Your task to perform on an android device: turn on bluetooth scan Image 0: 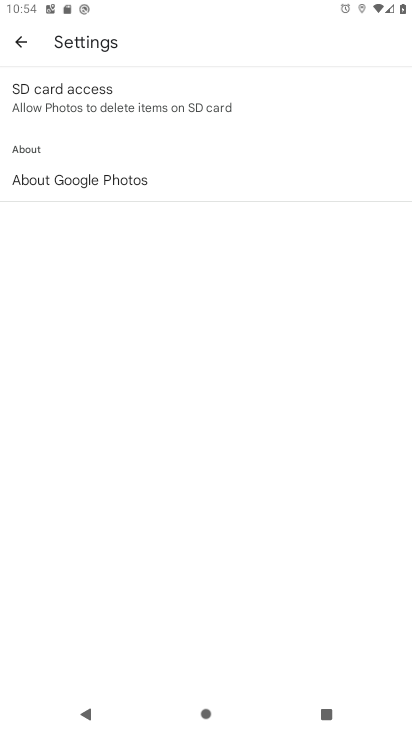
Step 0: press home button
Your task to perform on an android device: turn on bluetooth scan Image 1: 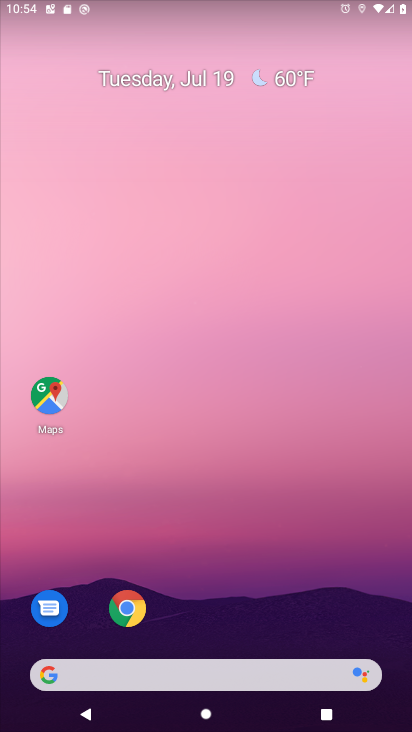
Step 1: drag from (195, 645) to (246, 52)
Your task to perform on an android device: turn on bluetooth scan Image 2: 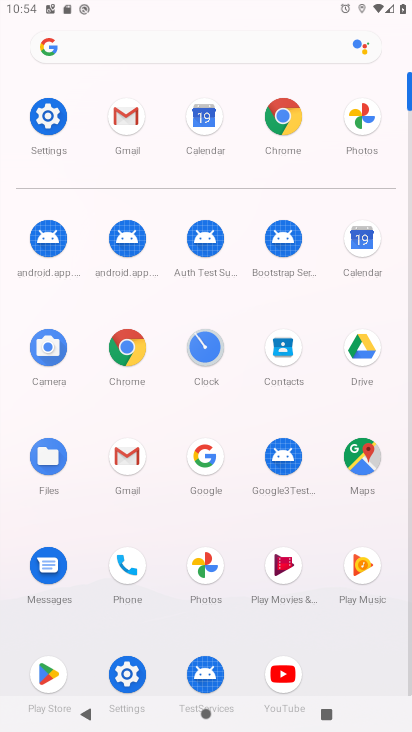
Step 2: click (38, 112)
Your task to perform on an android device: turn on bluetooth scan Image 3: 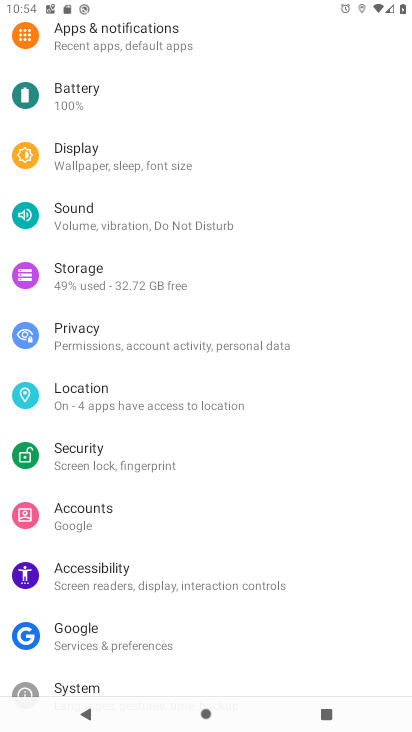
Step 3: drag from (86, 129) to (159, 590)
Your task to perform on an android device: turn on bluetooth scan Image 4: 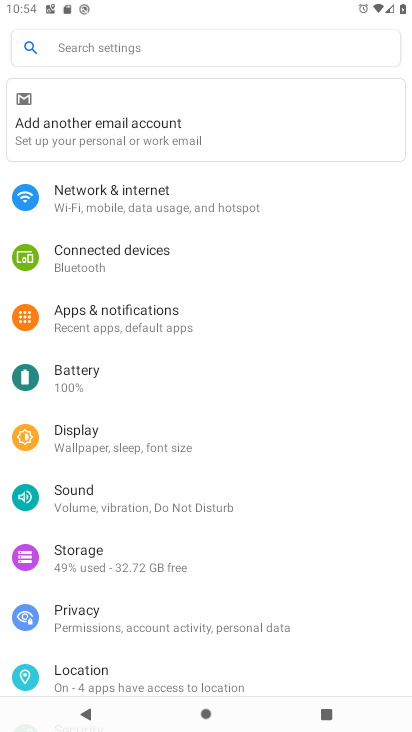
Step 4: click (83, 676)
Your task to perform on an android device: turn on bluetooth scan Image 5: 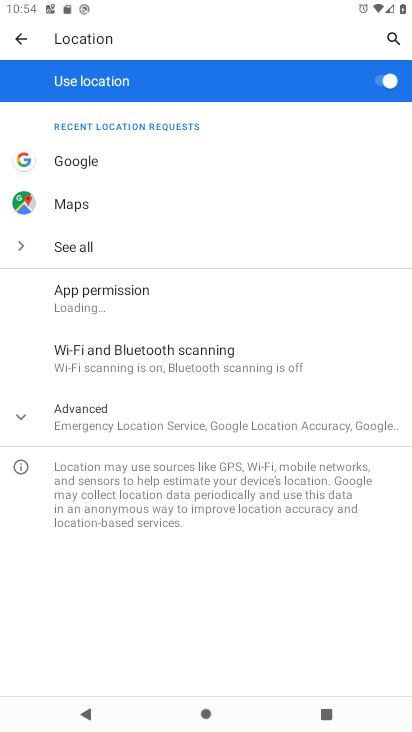
Step 5: click (193, 349)
Your task to perform on an android device: turn on bluetooth scan Image 6: 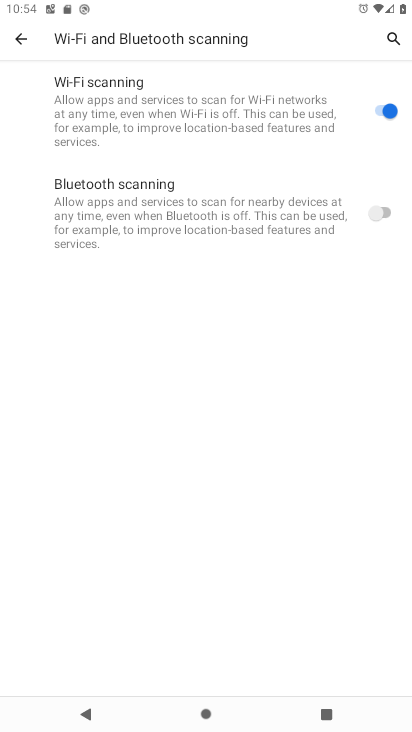
Step 6: click (375, 207)
Your task to perform on an android device: turn on bluetooth scan Image 7: 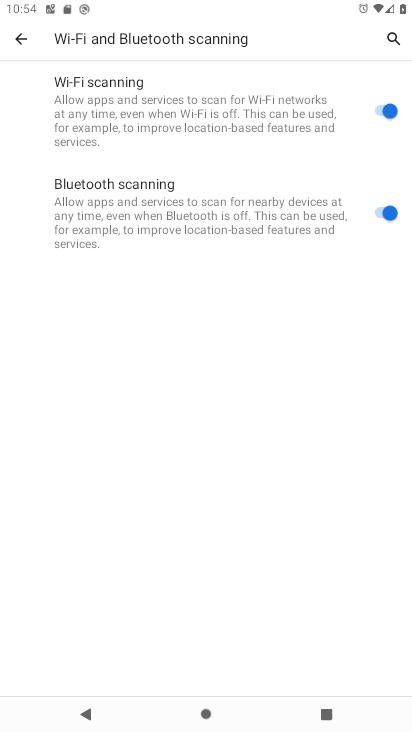
Step 7: task complete